Your task to perform on an android device: Search for Mexican restaurants on Maps Image 0: 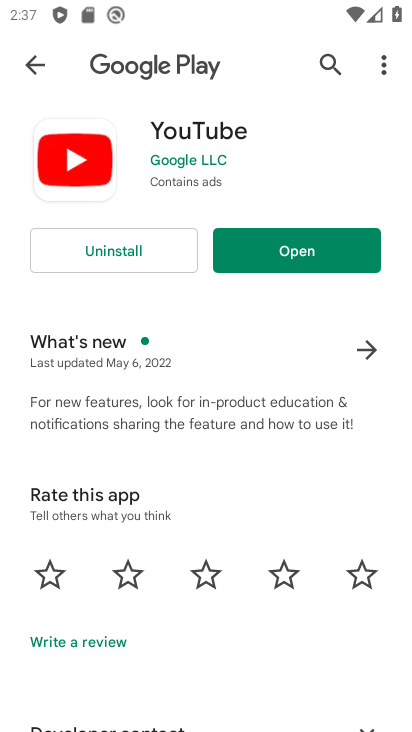
Step 0: press home button
Your task to perform on an android device: Search for Mexican restaurants on Maps Image 1: 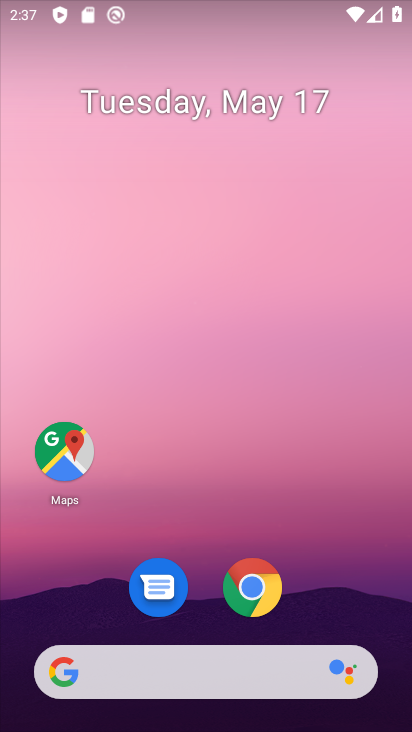
Step 1: drag from (256, 640) to (303, 6)
Your task to perform on an android device: Search for Mexican restaurants on Maps Image 2: 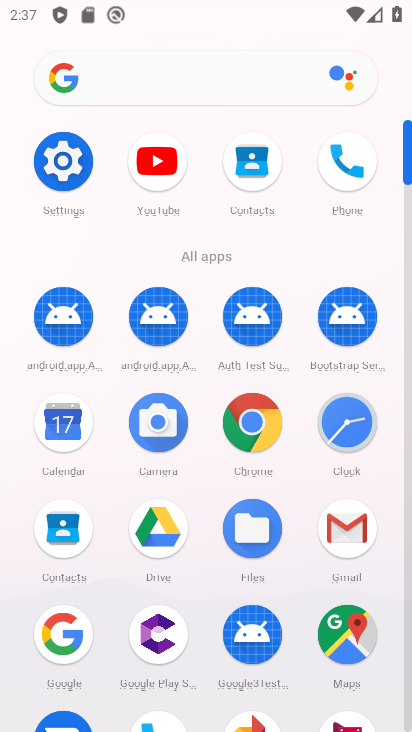
Step 2: click (345, 623)
Your task to perform on an android device: Search for Mexican restaurants on Maps Image 3: 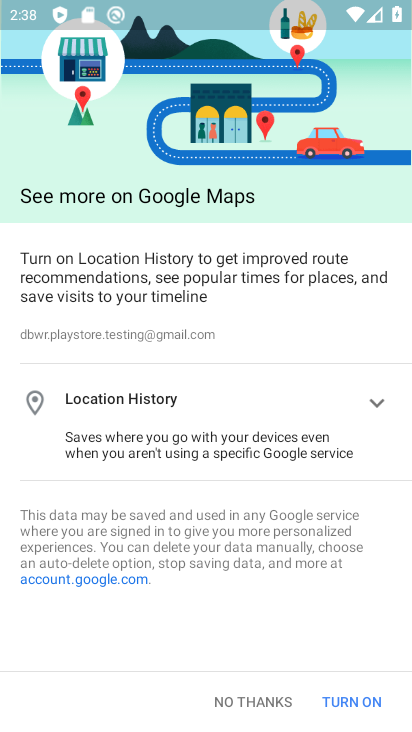
Step 3: click (269, 701)
Your task to perform on an android device: Search for Mexican restaurants on Maps Image 4: 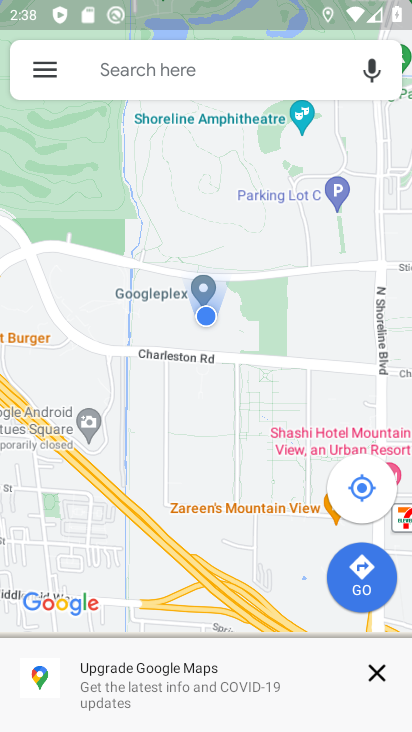
Step 4: click (232, 67)
Your task to perform on an android device: Search for Mexican restaurants on Maps Image 5: 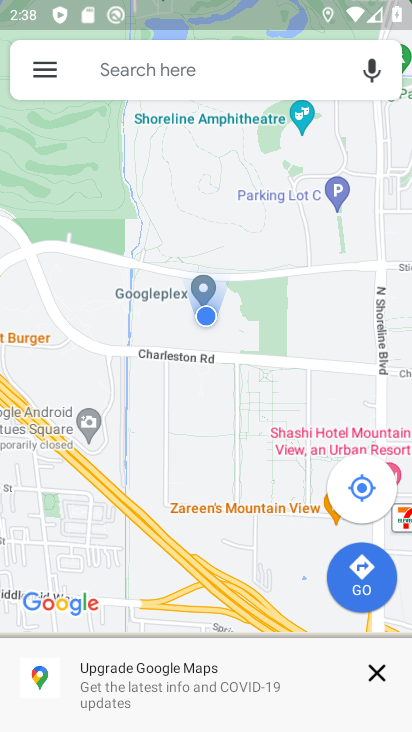
Step 5: click (232, 67)
Your task to perform on an android device: Search for Mexican restaurants on Maps Image 6: 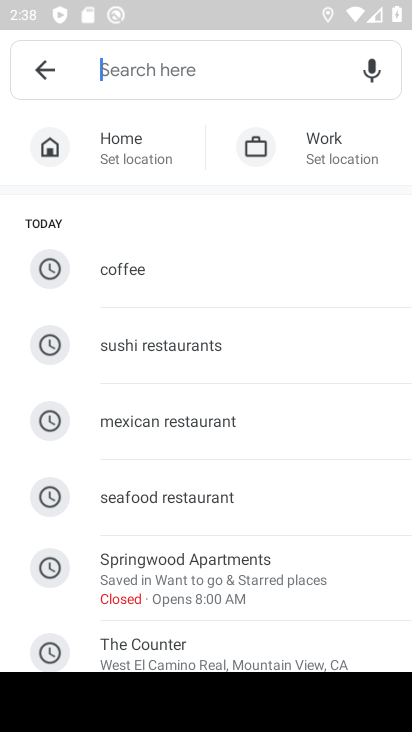
Step 6: type "mexican restaurant"
Your task to perform on an android device: Search for Mexican restaurants on Maps Image 7: 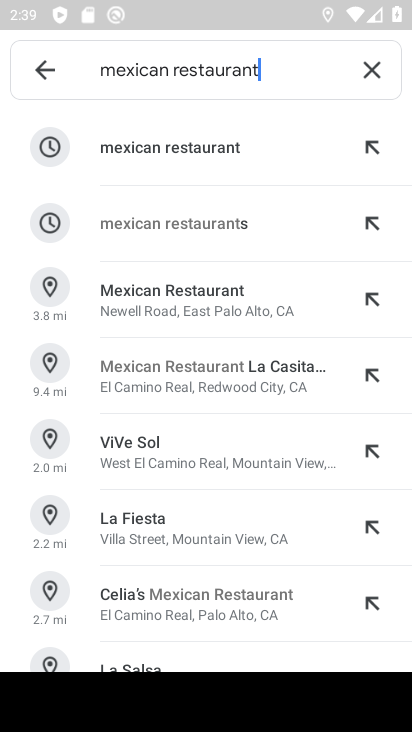
Step 7: click (212, 155)
Your task to perform on an android device: Search for Mexican restaurants on Maps Image 8: 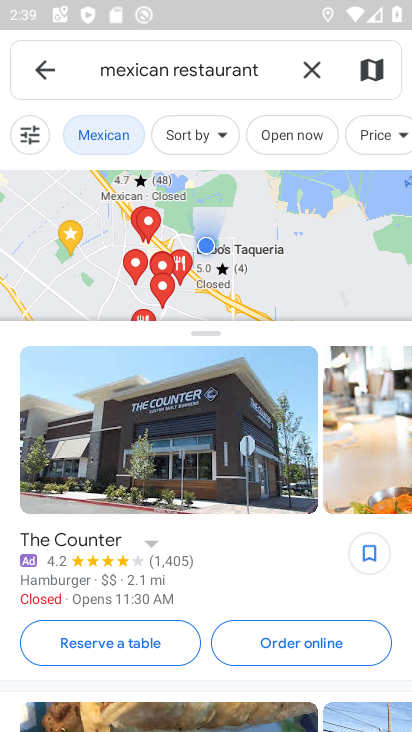
Step 8: task complete